Your task to perform on an android device: open chrome privacy settings Image 0: 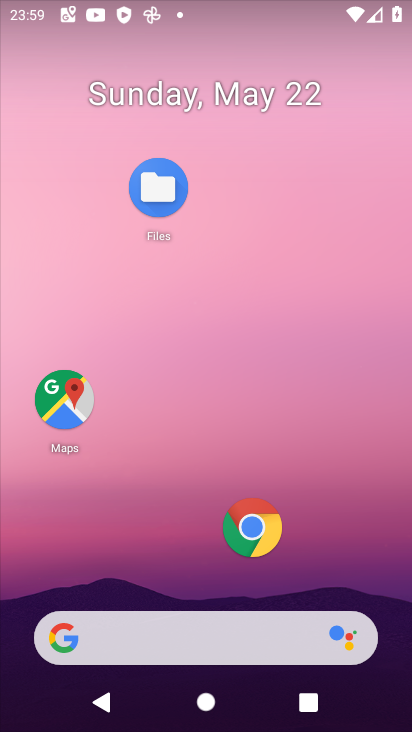
Step 0: click (252, 523)
Your task to perform on an android device: open chrome privacy settings Image 1: 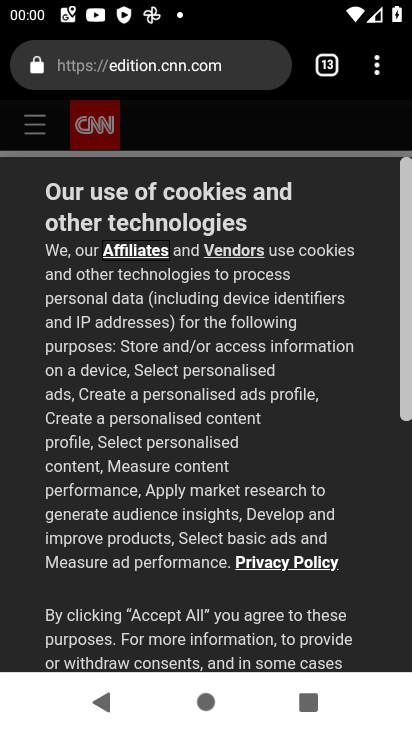
Step 1: click (376, 63)
Your task to perform on an android device: open chrome privacy settings Image 2: 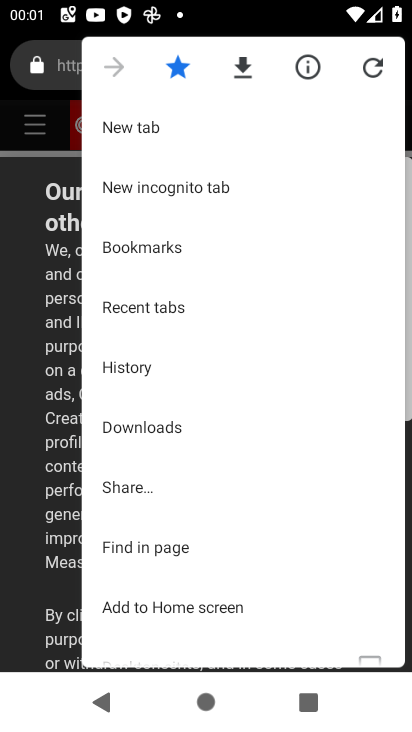
Step 2: drag from (247, 511) to (222, 108)
Your task to perform on an android device: open chrome privacy settings Image 3: 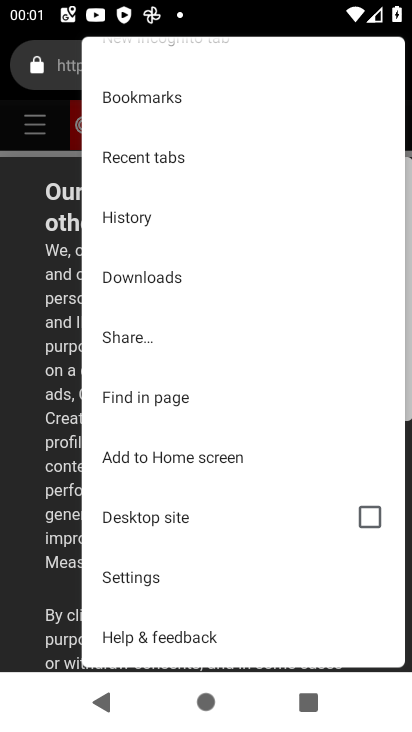
Step 3: click (145, 574)
Your task to perform on an android device: open chrome privacy settings Image 4: 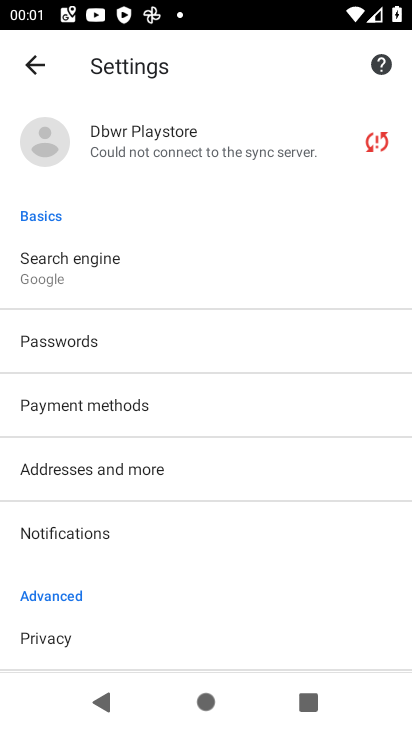
Step 4: drag from (206, 587) to (207, 140)
Your task to perform on an android device: open chrome privacy settings Image 5: 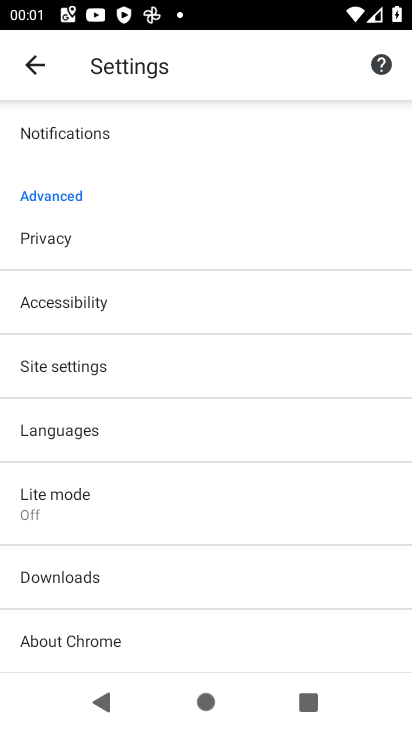
Step 5: click (59, 228)
Your task to perform on an android device: open chrome privacy settings Image 6: 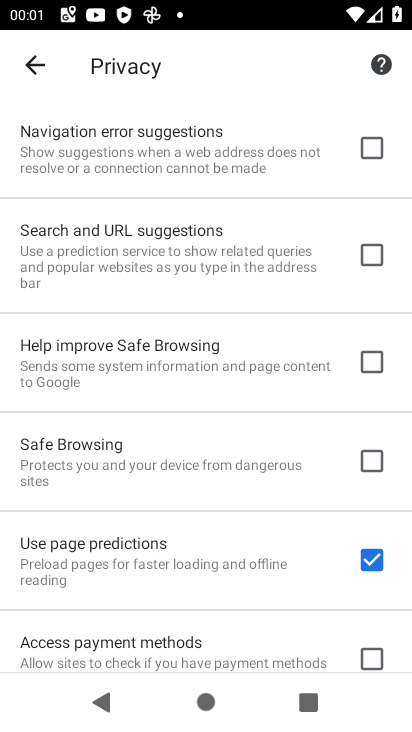
Step 6: task complete